Your task to perform on an android device: What's the weather today? Image 0: 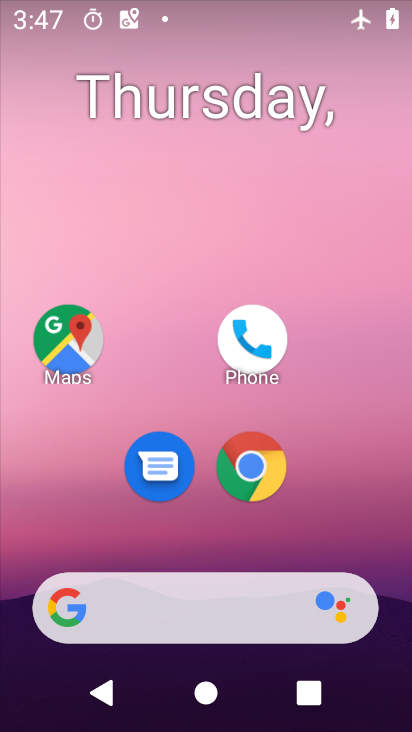
Step 0: drag from (212, 543) to (236, 236)
Your task to perform on an android device: What's the weather today? Image 1: 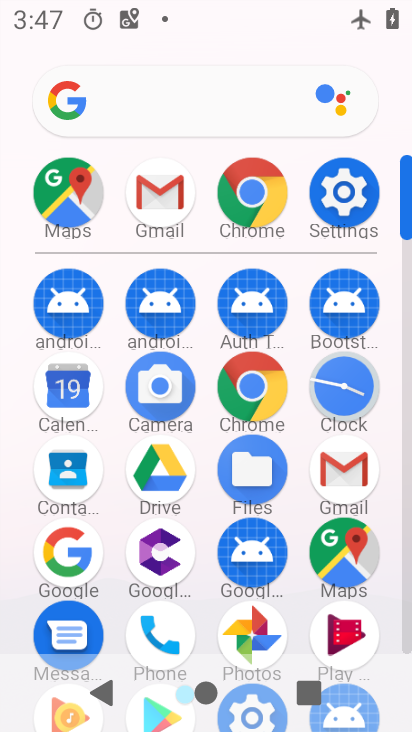
Step 1: click (219, 110)
Your task to perform on an android device: What's the weather today? Image 2: 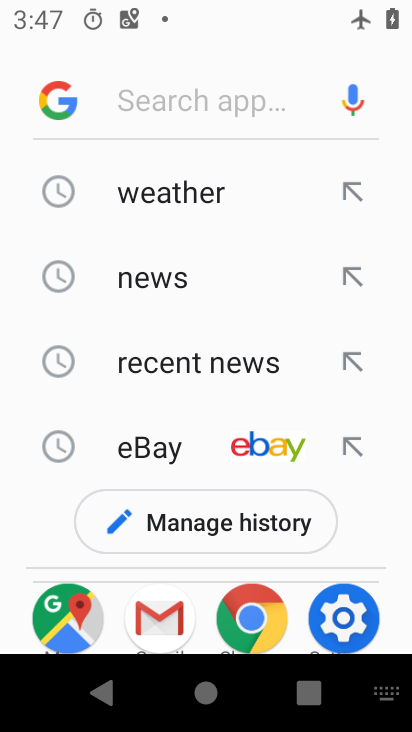
Step 2: type "weather today"
Your task to perform on an android device: What's the weather today? Image 3: 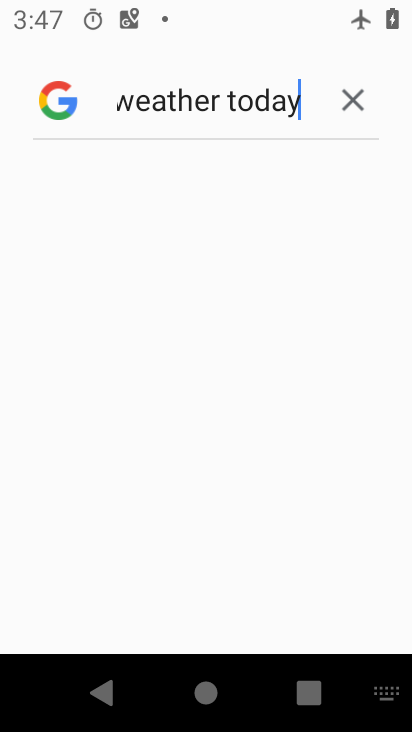
Step 3: click (98, 386)
Your task to perform on an android device: What's the weather today? Image 4: 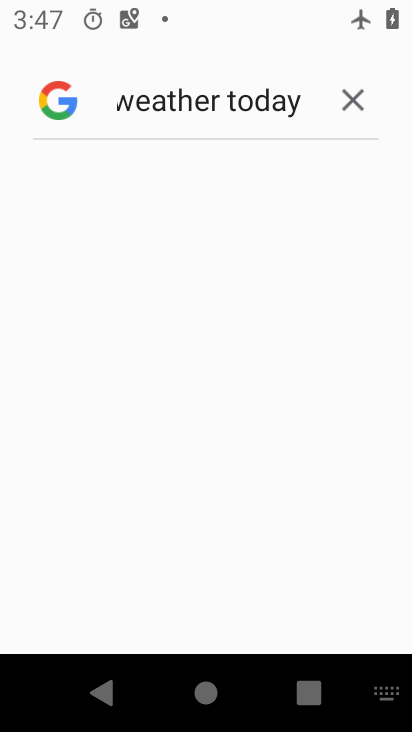
Step 4: task complete